Your task to perform on an android device: open a bookmark in the chrome app Image 0: 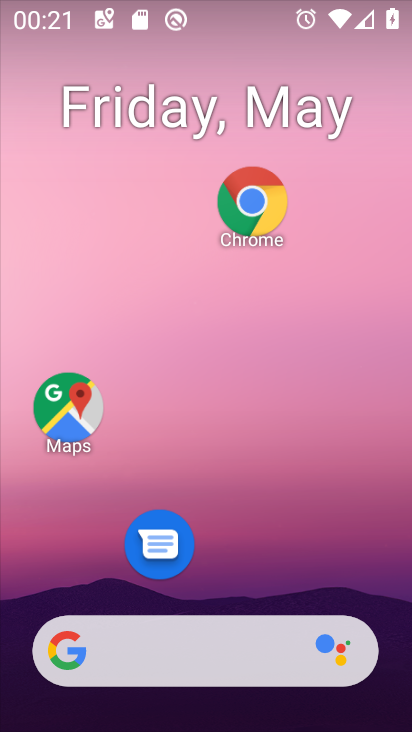
Step 0: click (253, 190)
Your task to perform on an android device: open a bookmark in the chrome app Image 1: 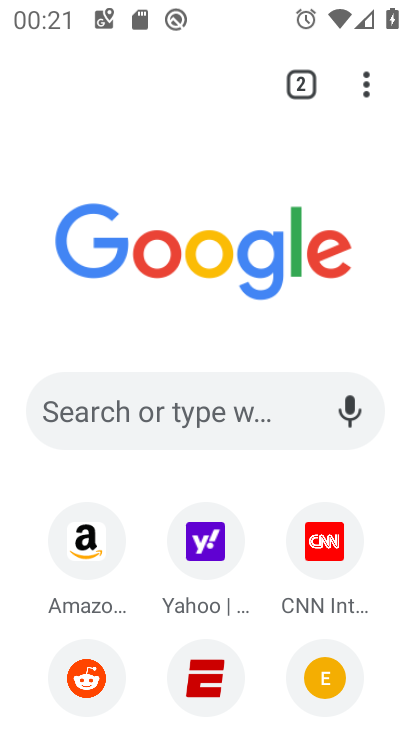
Step 1: click (365, 90)
Your task to perform on an android device: open a bookmark in the chrome app Image 2: 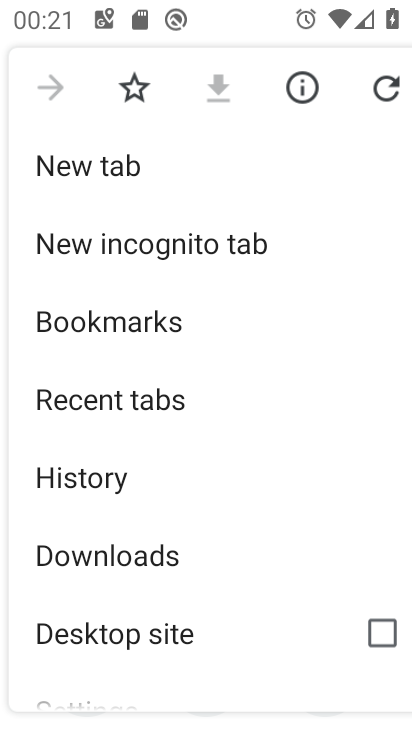
Step 2: click (190, 313)
Your task to perform on an android device: open a bookmark in the chrome app Image 3: 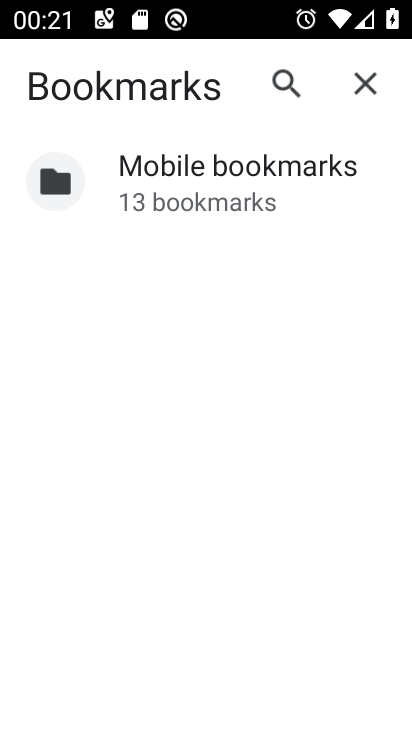
Step 3: click (167, 190)
Your task to perform on an android device: open a bookmark in the chrome app Image 4: 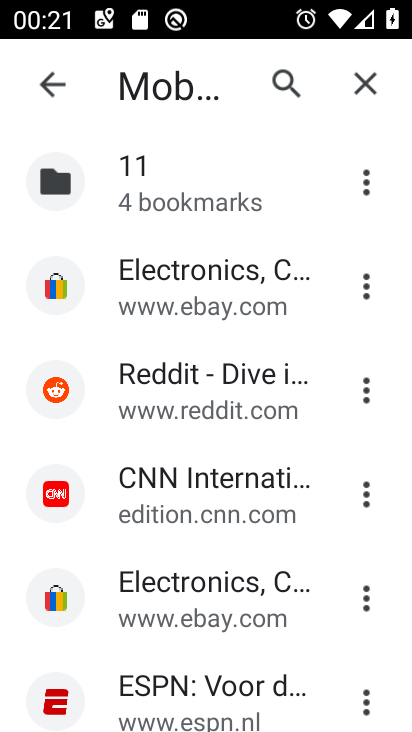
Step 4: click (189, 589)
Your task to perform on an android device: open a bookmark in the chrome app Image 5: 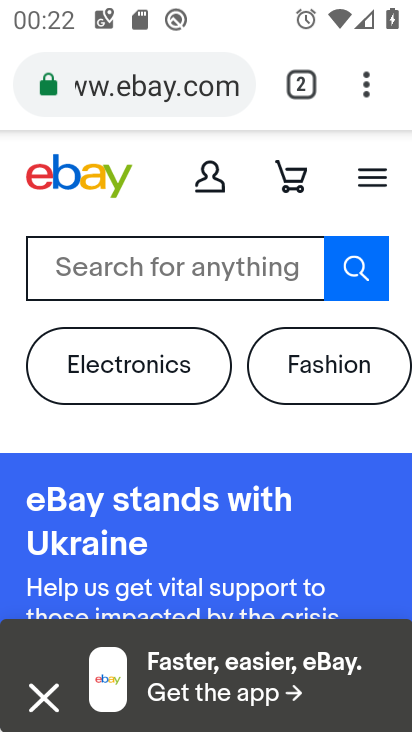
Step 5: click (44, 705)
Your task to perform on an android device: open a bookmark in the chrome app Image 6: 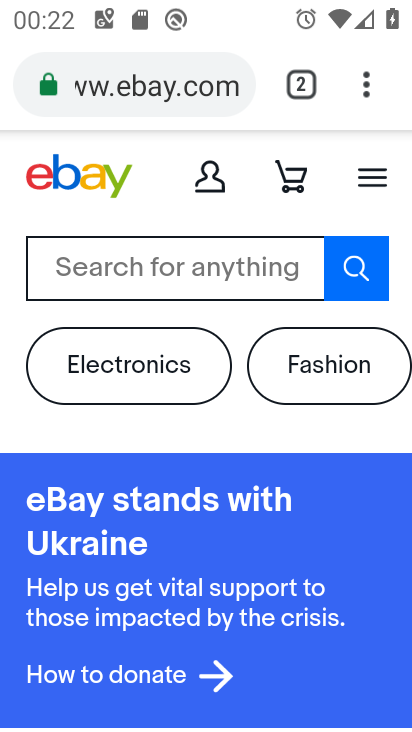
Step 6: task complete